Your task to perform on an android device: Open Google Chrome Image 0: 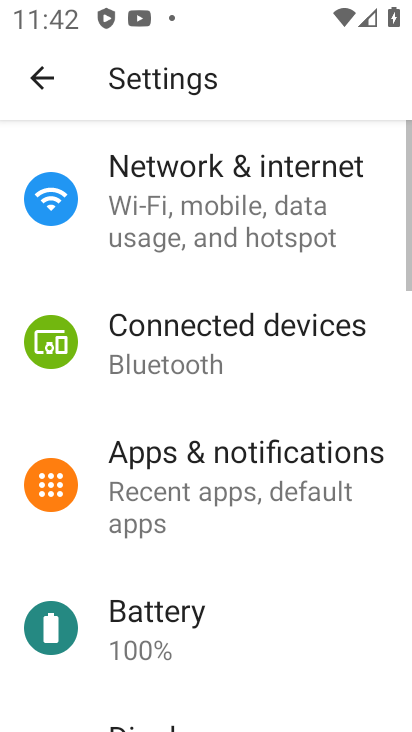
Step 0: press home button
Your task to perform on an android device: Open Google Chrome Image 1: 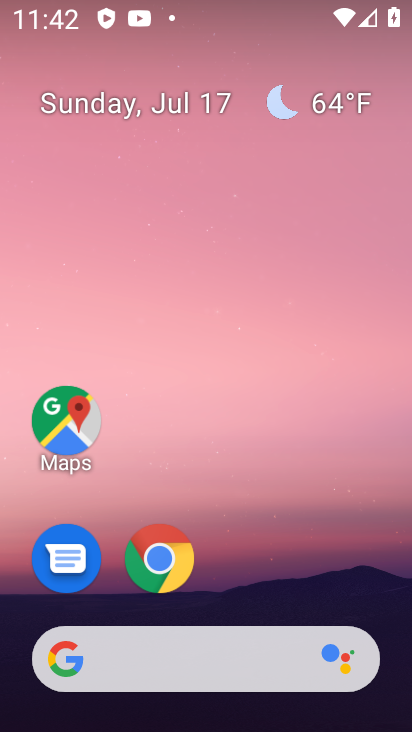
Step 1: drag from (353, 588) to (360, 69)
Your task to perform on an android device: Open Google Chrome Image 2: 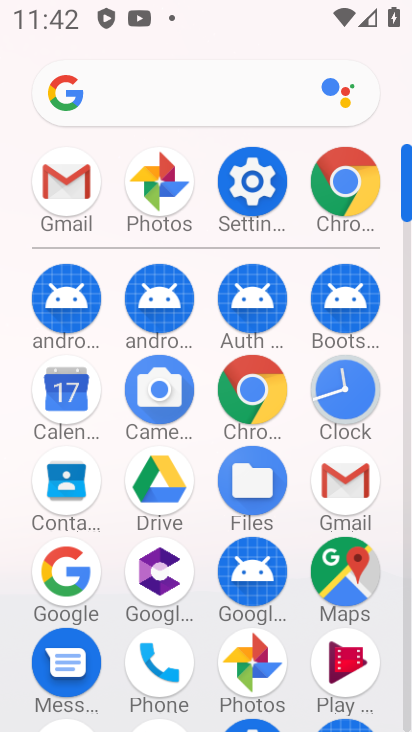
Step 2: click (257, 384)
Your task to perform on an android device: Open Google Chrome Image 3: 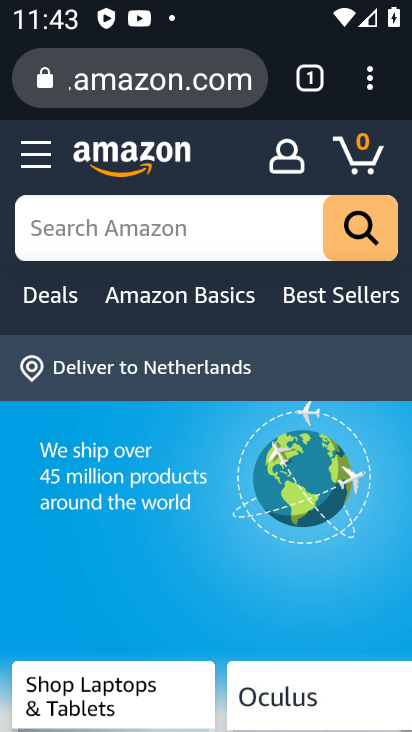
Step 3: task complete